Your task to perform on an android device: turn on data saver in the chrome app Image 0: 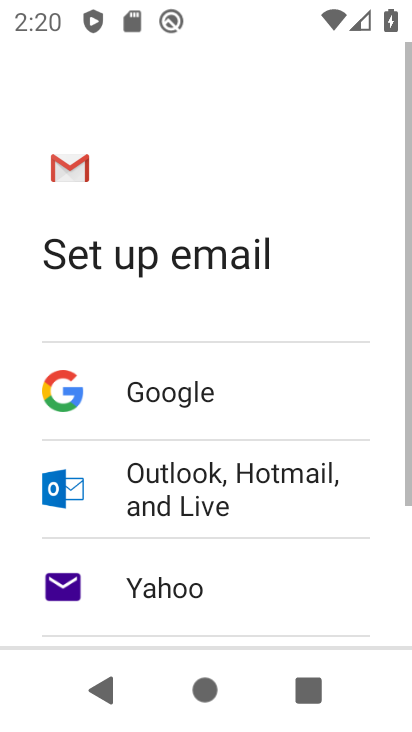
Step 0: press back button
Your task to perform on an android device: turn on data saver in the chrome app Image 1: 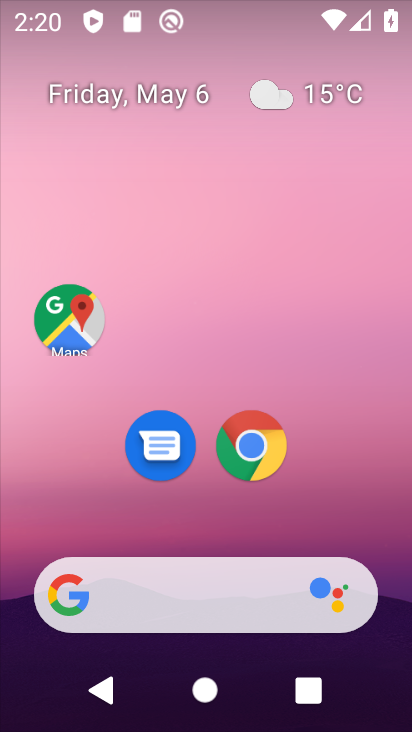
Step 1: click (251, 455)
Your task to perform on an android device: turn on data saver in the chrome app Image 2: 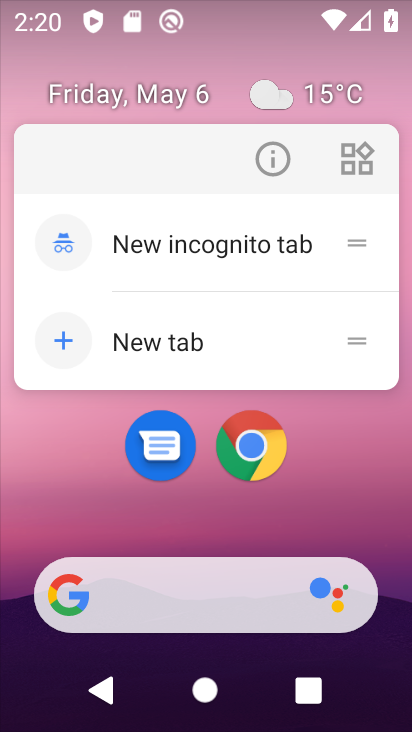
Step 2: click (251, 455)
Your task to perform on an android device: turn on data saver in the chrome app Image 3: 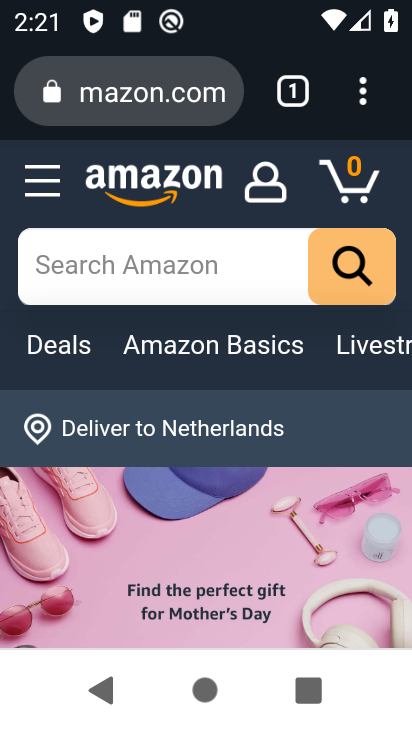
Step 3: drag from (356, 105) to (310, 479)
Your task to perform on an android device: turn on data saver in the chrome app Image 4: 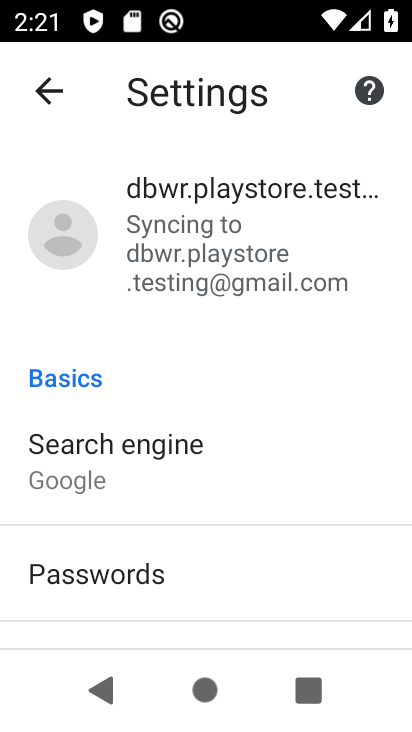
Step 4: drag from (133, 620) to (293, 197)
Your task to perform on an android device: turn on data saver in the chrome app Image 5: 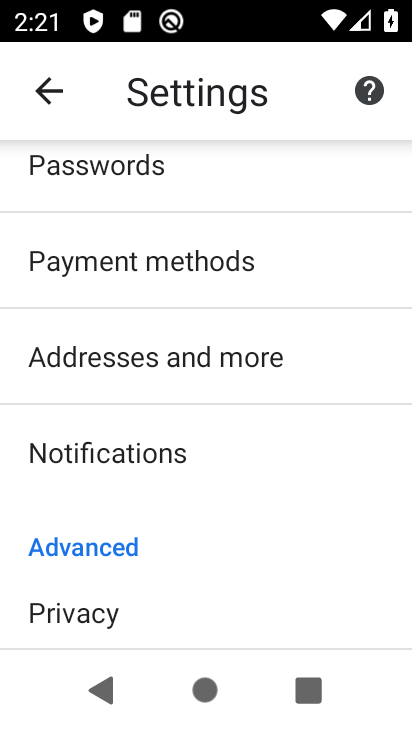
Step 5: drag from (233, 527) to (305, 191)
Your task to perform on an android device: turn on data saver in the chrome app Image 6: 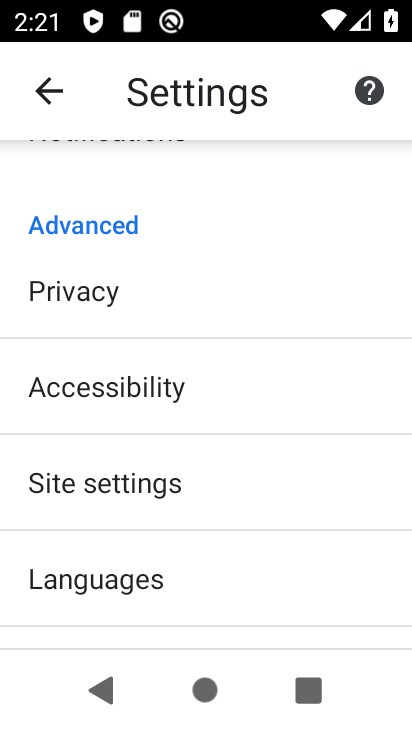
Step 6: drag from (139, 586) to (229, 284)
Your task to perform on an android device: turn on data saver in the chrome app Image 7: 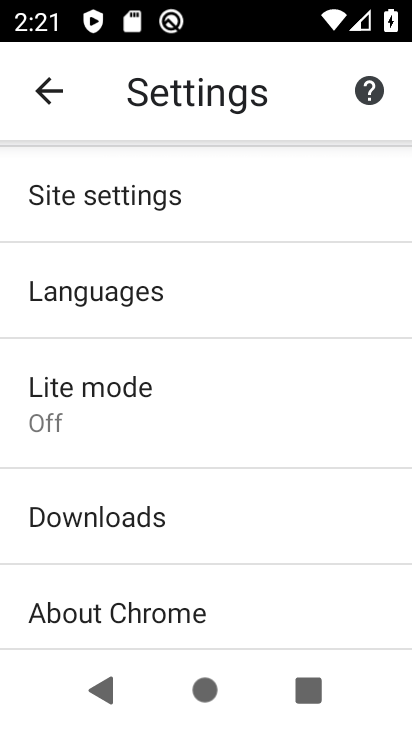
Step 7: drag from (201, 606) to (249, 370)
Your task to perform on an android device: turn on data saver in the chrome app Image 8: 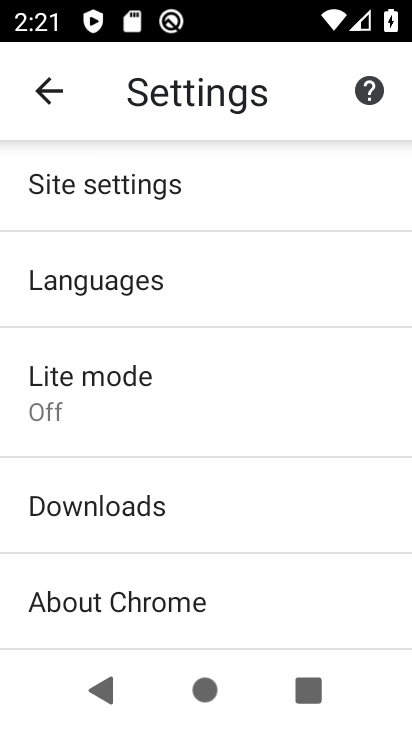
Step 8: click (167, 405)
Your task to perform on an android device: turn on data saver in the chrome app Image 9: 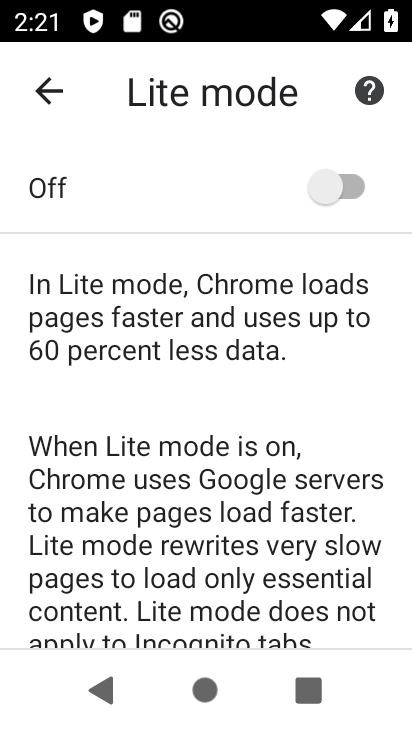
Step 9: click (361, 182)
Your task to perform on an android device: turn on data saver in the chrome app Image 10: 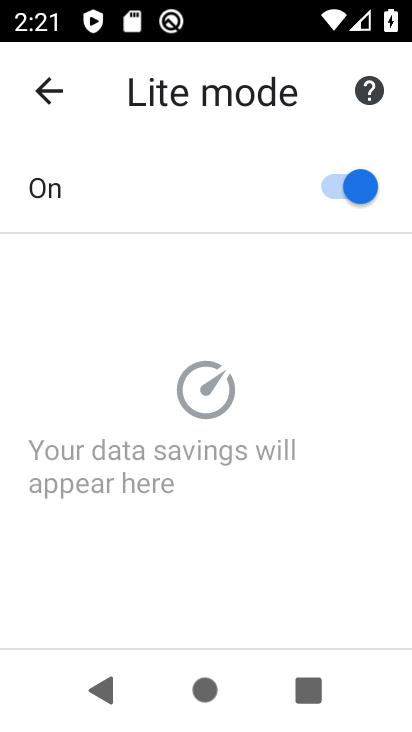
Step 10: task complete